Your task to perform on an android device: Open network settings Image 0: 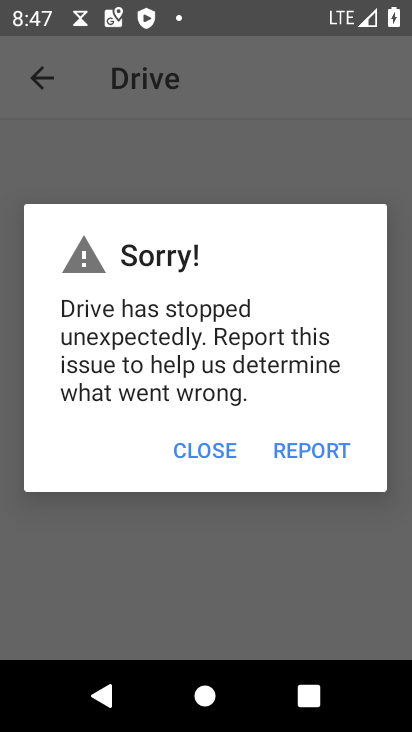
Step 0: press home button
Your task to perform on an android device: Open network settings Image 1: 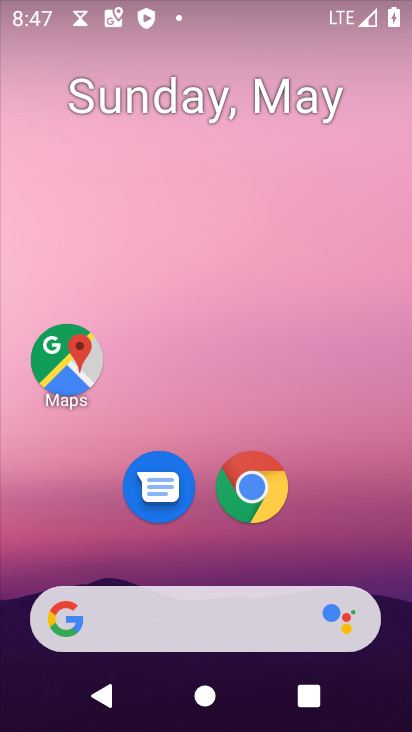
Step 1: drag from (357, 454) to (323, 134)
Your task to perform on an android device: Open network settings Image 2: 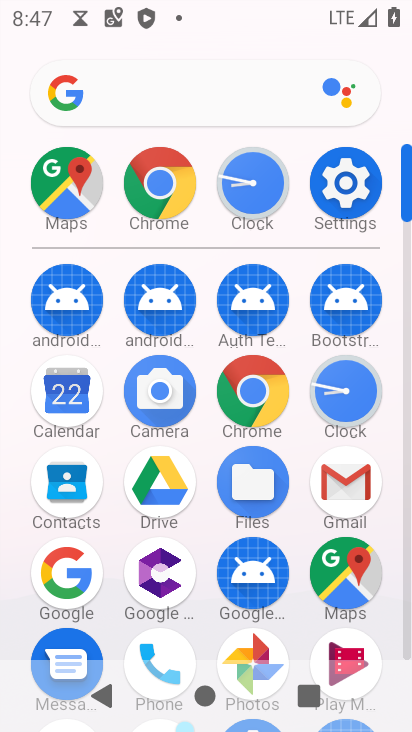
Step 2: click (348, 169)
Your task to perform on an android device: Open network settings Image 3: 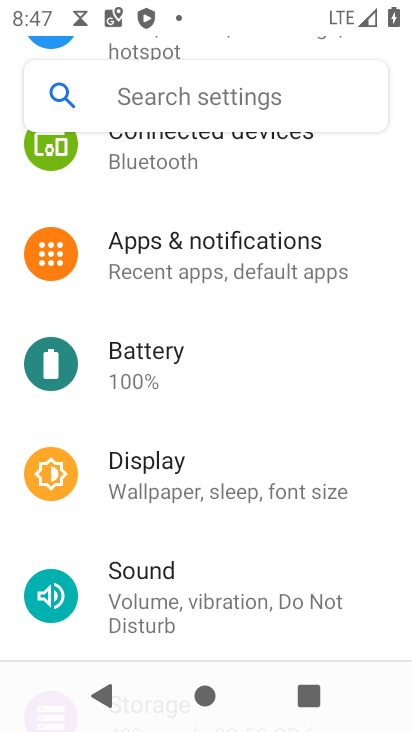
Step 3: drag from (263, 269) to (319, 562)
Your task to perform on an android device: Open network settings Image 4: 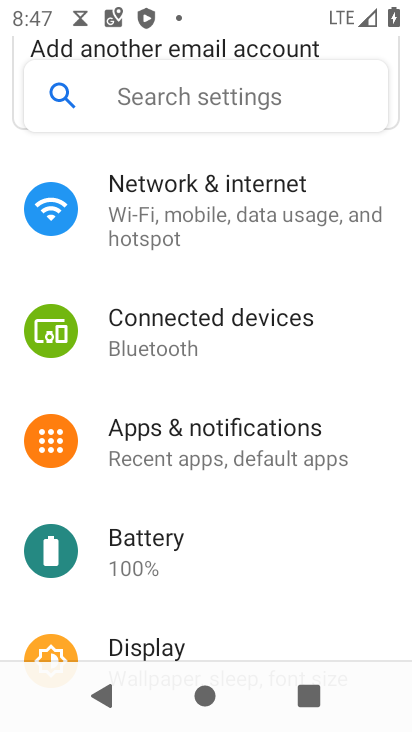
Step 4: click (291, 184)
Your task to perform on an android device: Open network settings Image 5: 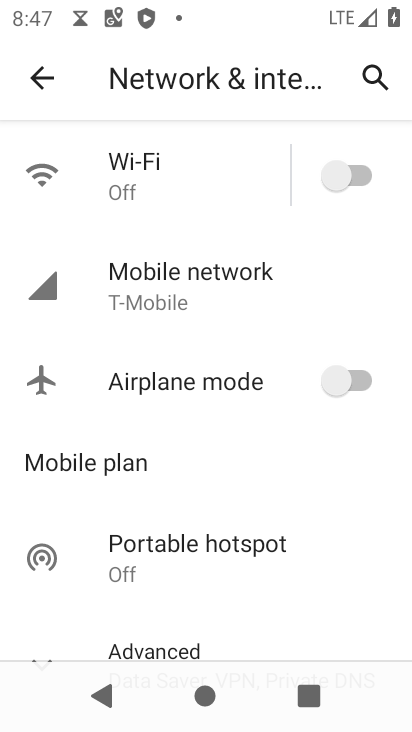
Step 5: task complete